Your task to perform on an android device: open app "Lyft - Rideshare, Bikes, Scooters & Transit" (install if not already installed) and enter user name: "deliberating@gmail.com" and password: "preyed" Image 0: 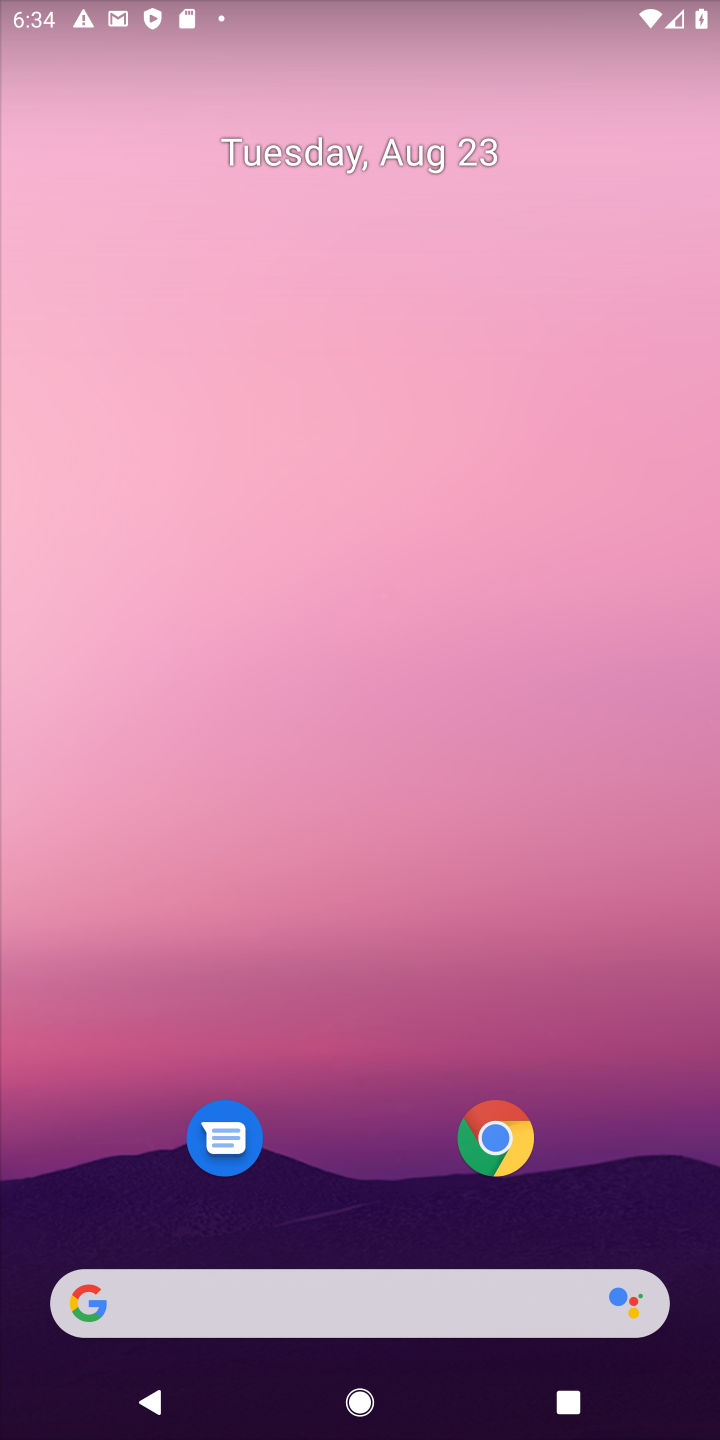
Step 0: drag from (242, 1277) to (273, 500)
Your task to perform on an android device: open app "Lyft - Rideshare, Bikes, Scooters & Transit" (install if not already installed) and enter user name: "deliberating@gmail.com" and password: "preyed" Image 1: 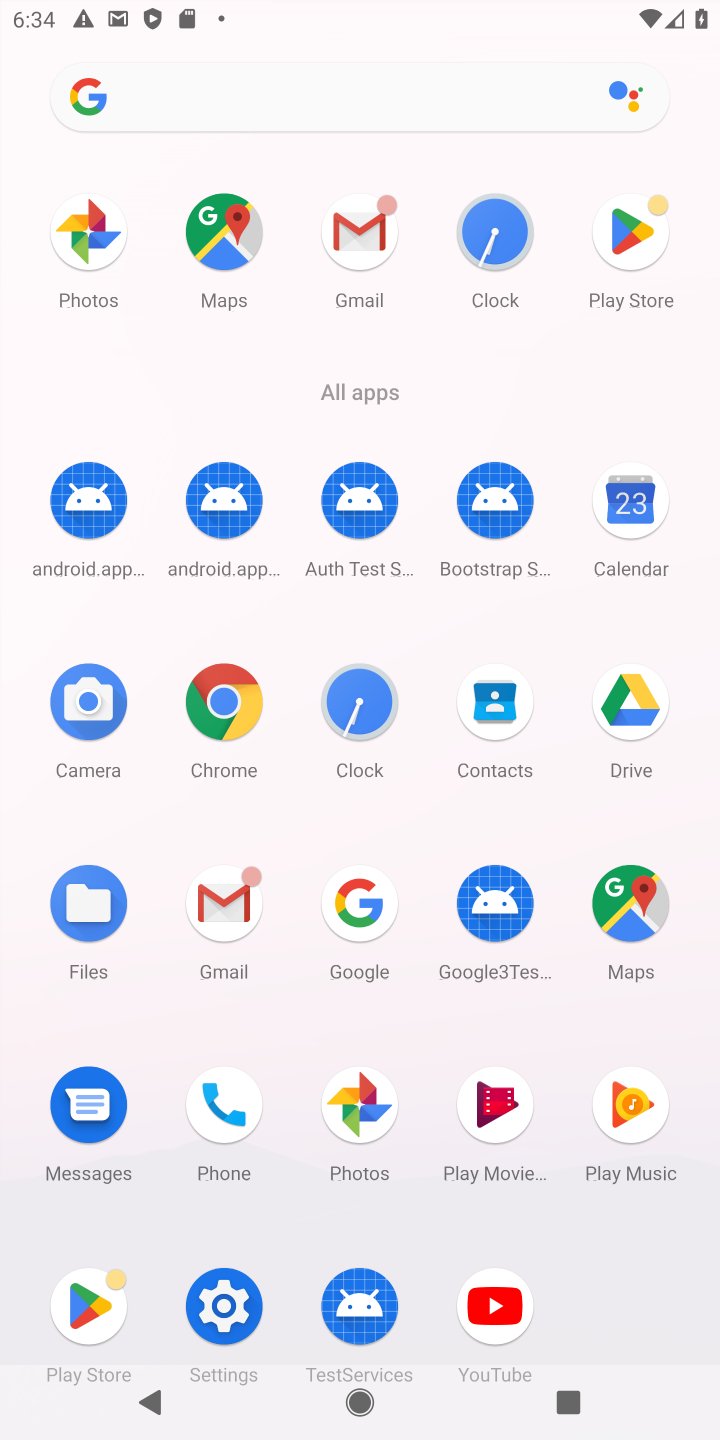
Step 1: click (598, 226)
Your task to perform on an android device: open app "Lyft - Rideshare, Bikes, Scooters & Transit" (install if not already installed) and enter user name: "deliberating@gmail.com" and password: "preyed" Image 2: 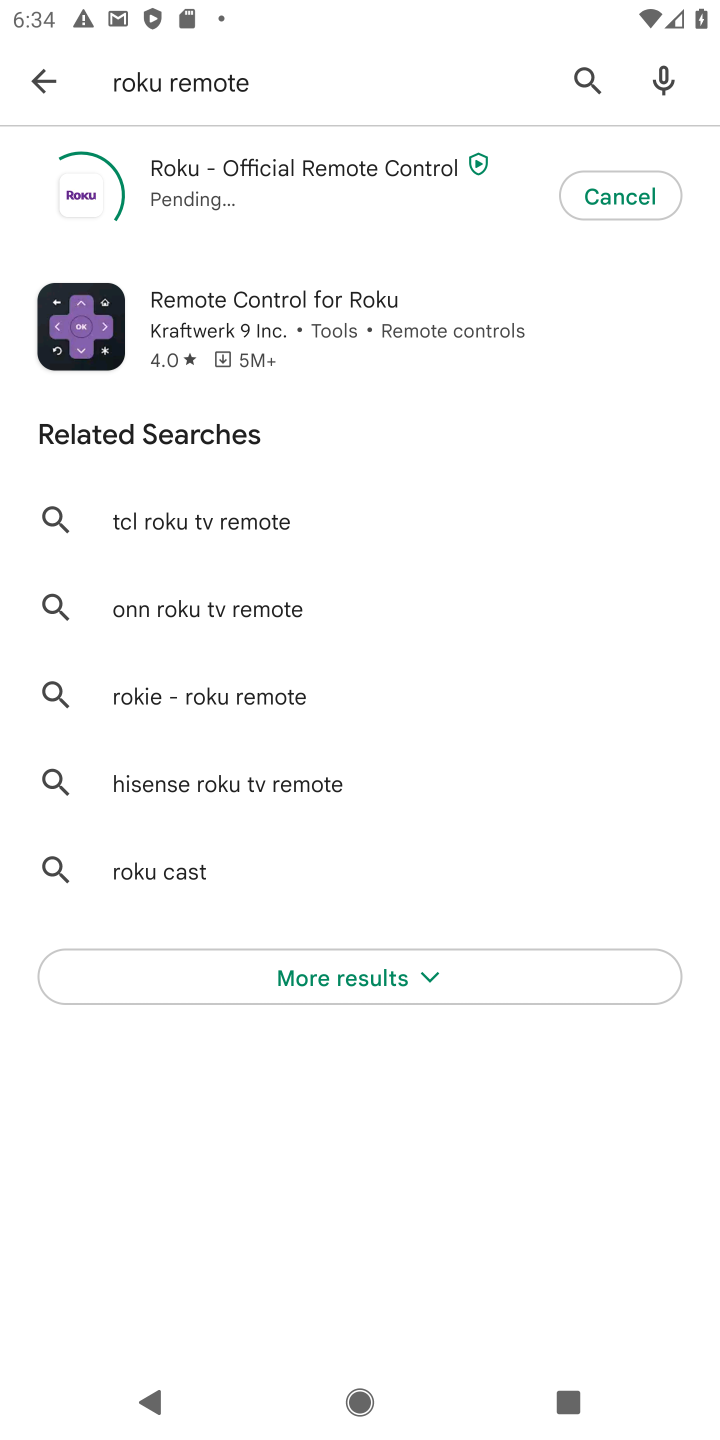
Step 2: click (38, 74)
Your task to perform on an android device: open app "Lyft - Rideshare, Bikes, Scooters & Transit" (install if not already installed) and enter user name: "deliberating@gmail.com" and password: "preyed" Image 3: 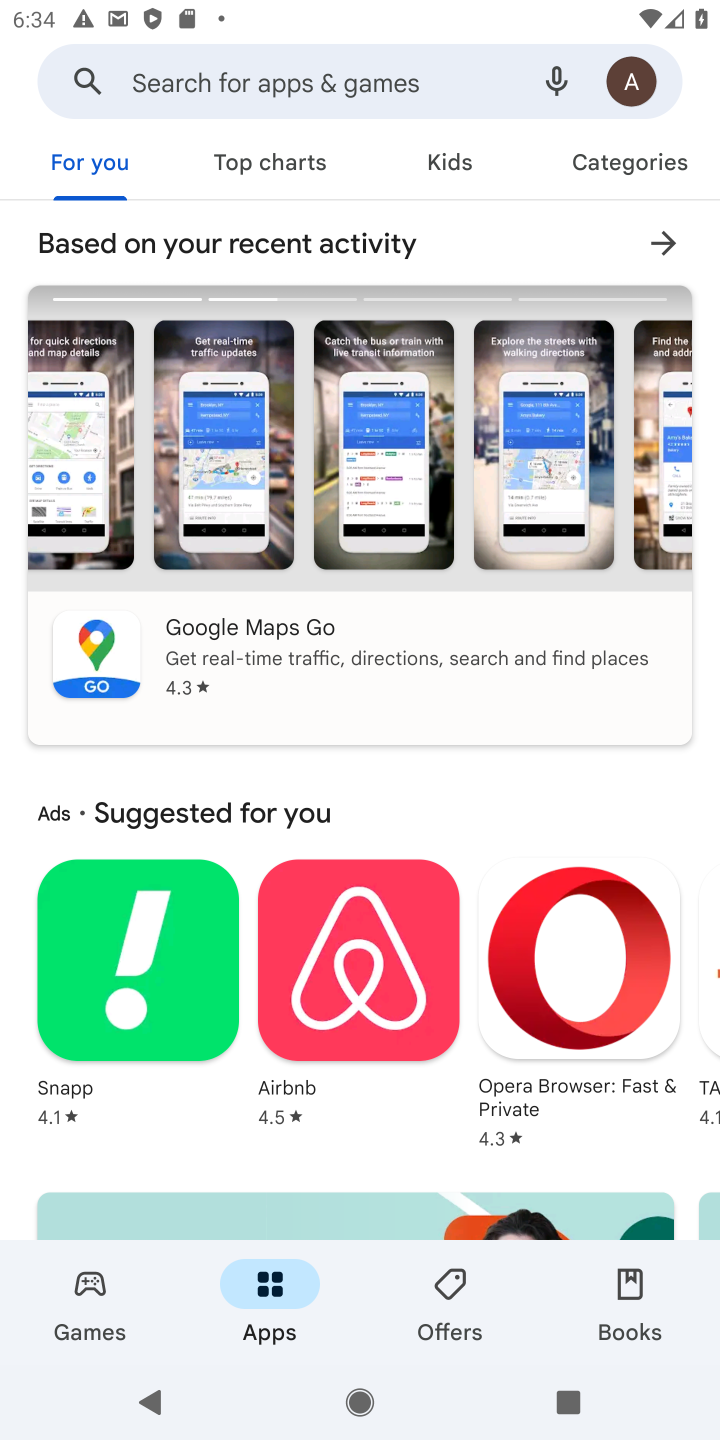
Step 3: click (324, 78)
Your task to perform on an android device: open app "Lyft - Rideshare, Bikes, Scooters & Transit" (install if not already installed) and enter user name: "deliberating@gmail.com" and password: "preyed" Image 4: 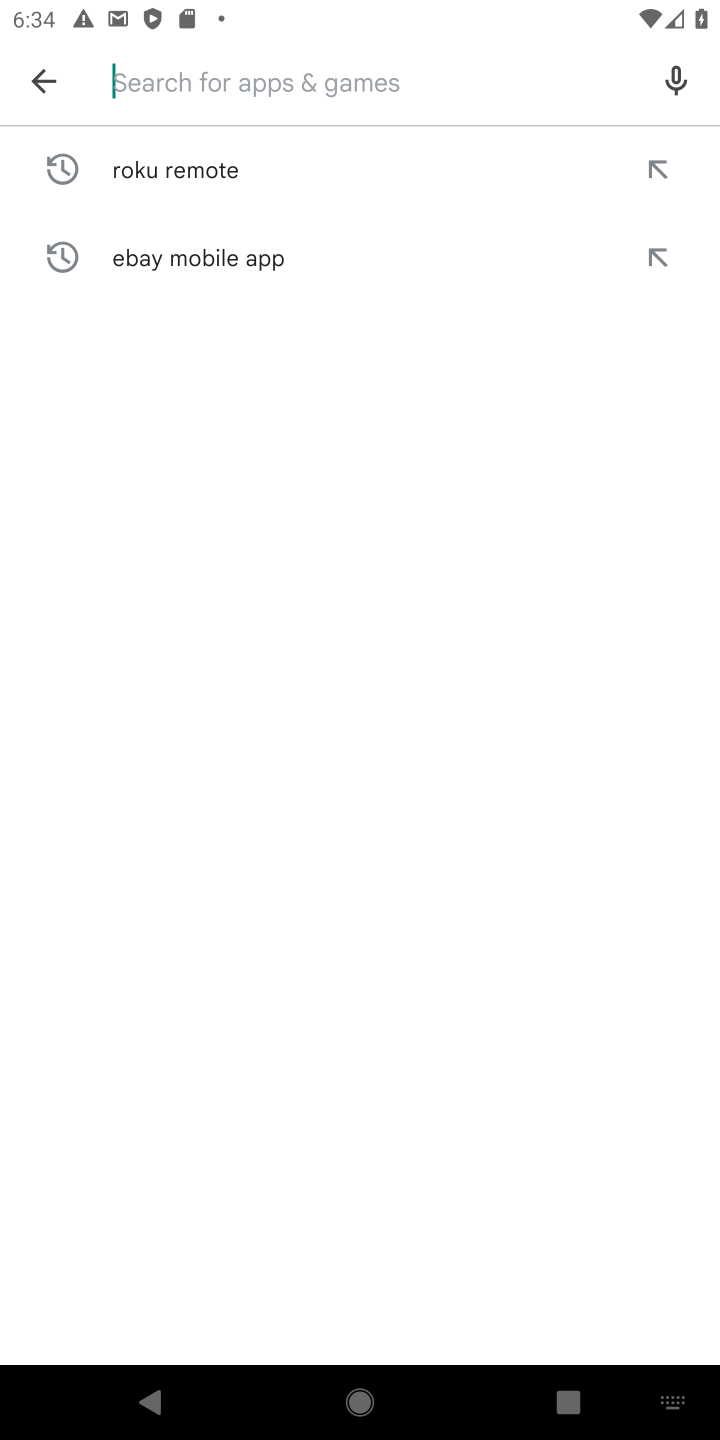
Step 4: type "Lyft  "
Your task to perform on an android device: open app "Lyft - Rideshare, Bikes, Scooters & Transit" (install if not already installed) and enter user name: "deliberating@gmail.com" and password: "preyed" Image 5: 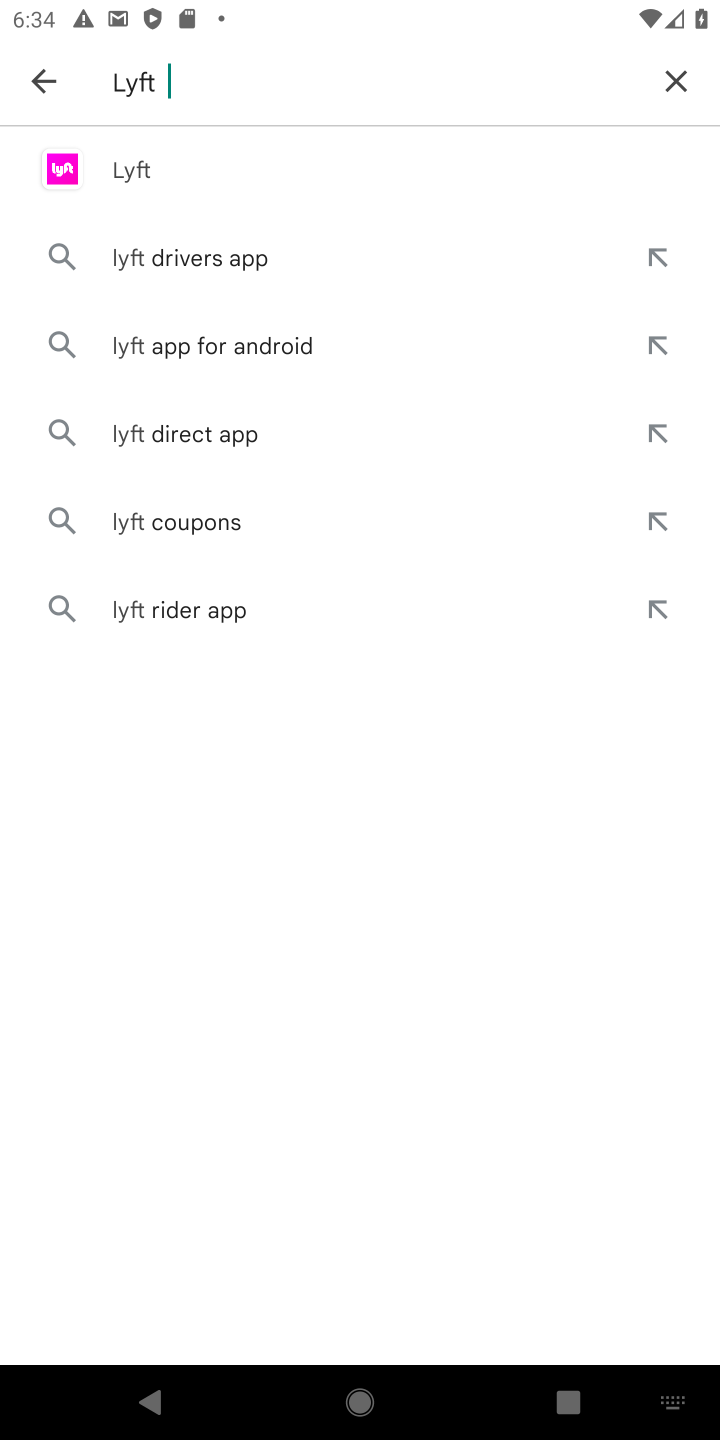
Step 5: click (134, 162)
Your task to perform on an android device: open app "Lyft - Rideshare, Bikes, Scooters & Transit" (install if not already installed) and enter user name: "deliberating@gmail.com" and password: "preyed" Image 6: 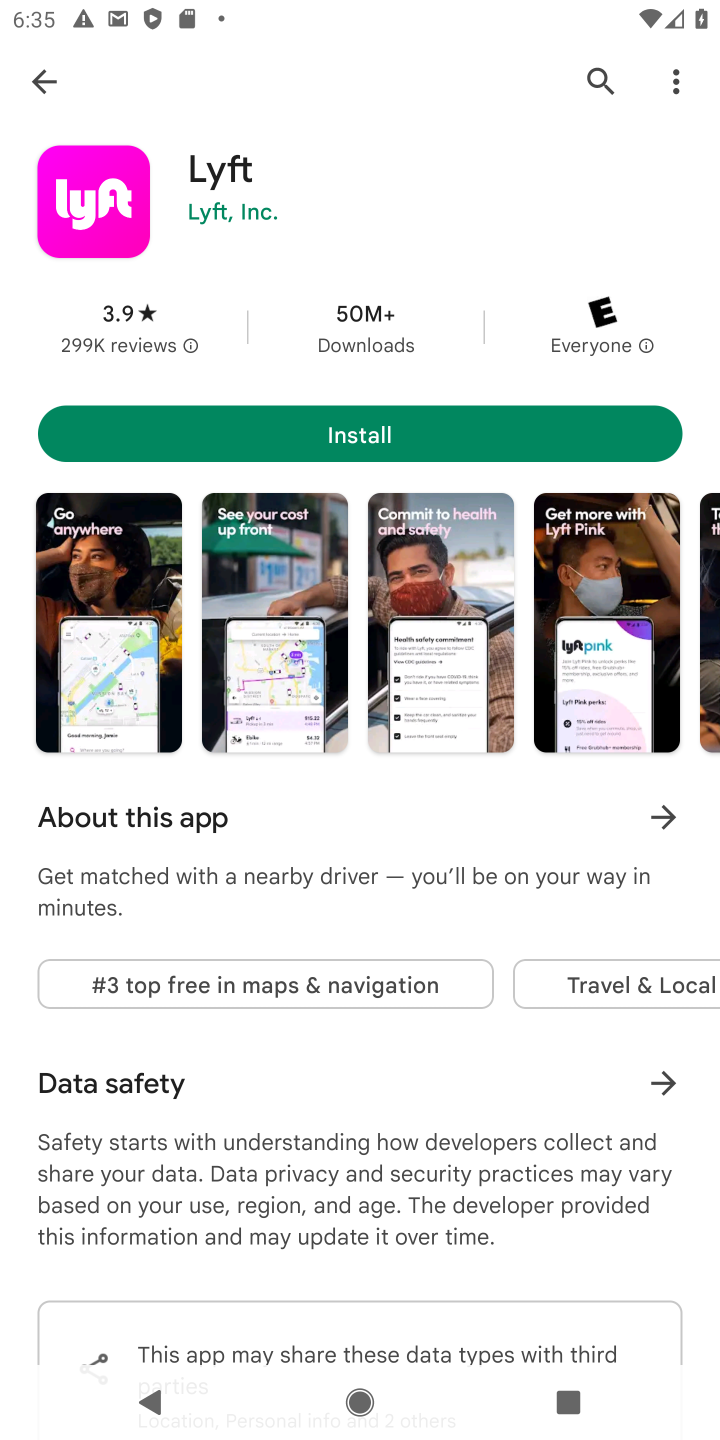
Step 6: click (404, 437)
Your task to perform on an android device: open app "Lyft - Rideshare, Bikes, Scooters & Transit" (install if not already installed) and enter user name: "deliberating@gmail.com" and password: "preyed" Image 7: 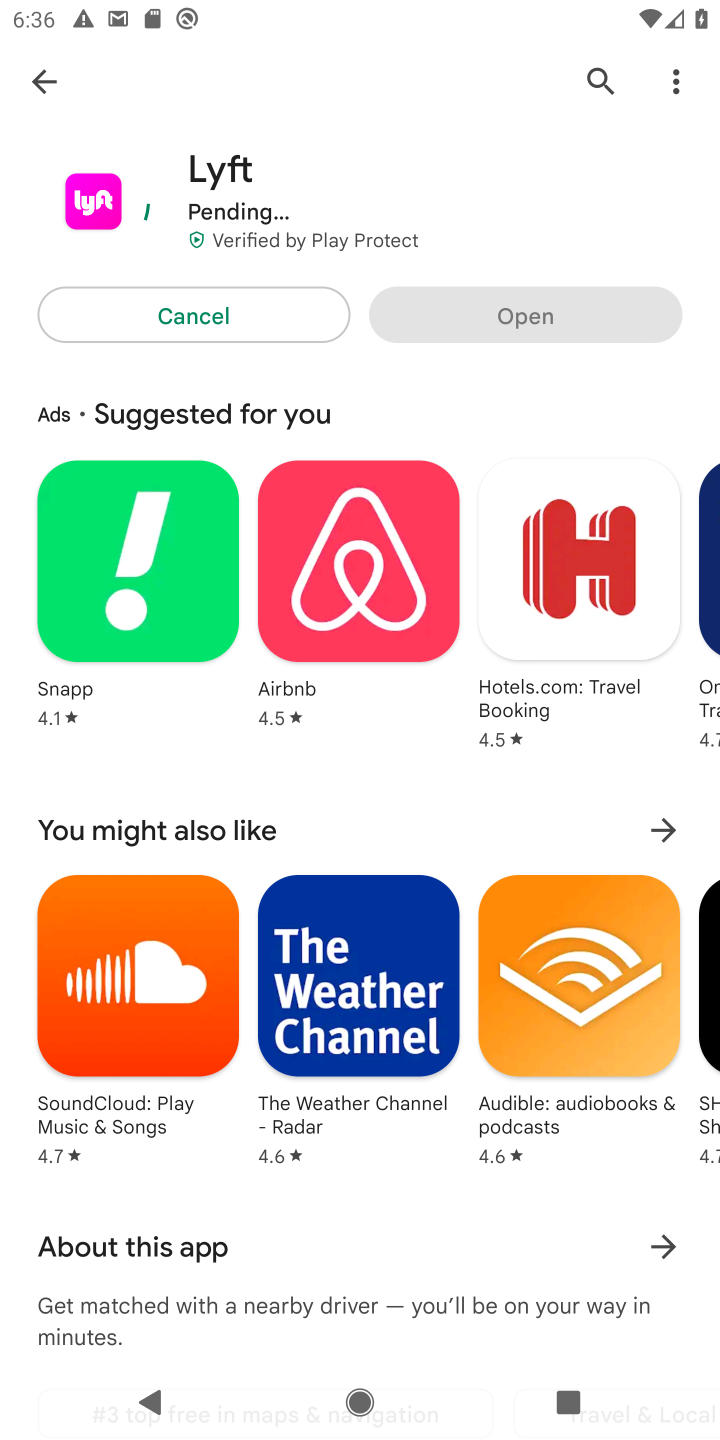
Step 7: task complete